Your task to perform on an android device: change the clock display to show seconds Image 0: 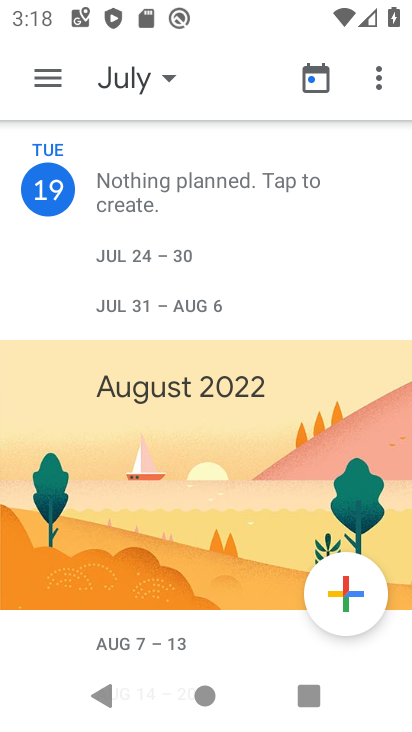
Step 0: press back button
Your task to perform on an android device: change the clock display to show seconds Image 1: 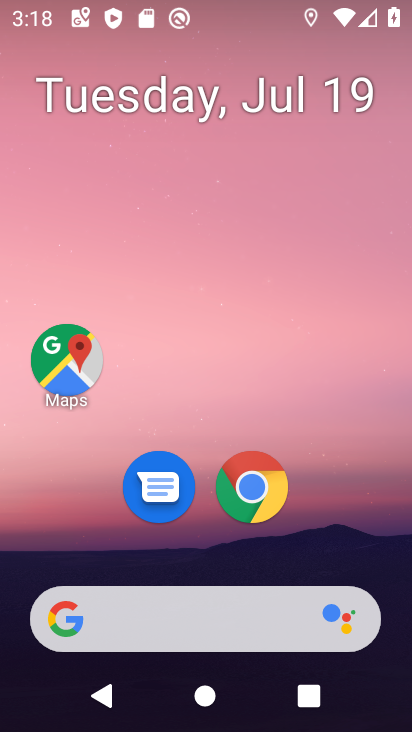
Step 1: drag from (248, 545) to (307, 1)
Your task to perform on an android device: change the clock display to show seconds Image 2: 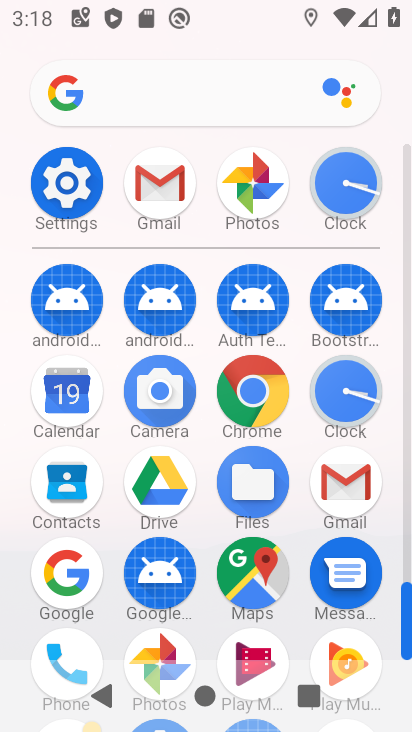
Step 2: click (335, 175)
Your task to perform on an android device: change the clock display to show seconds Image 3: 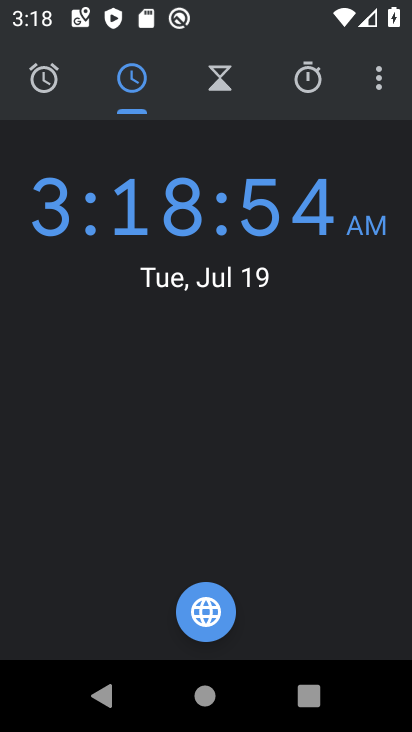
Step 3: click (366, 74)
Your task to perform on an android device: change the clock display to show seconds Image 4: 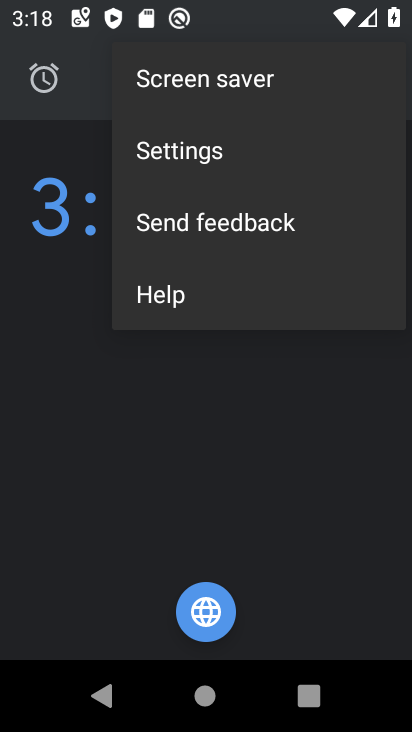
Step 4: click (251, 144)
Your task to perform on an android device: change the clock display to show seconds Image 5: 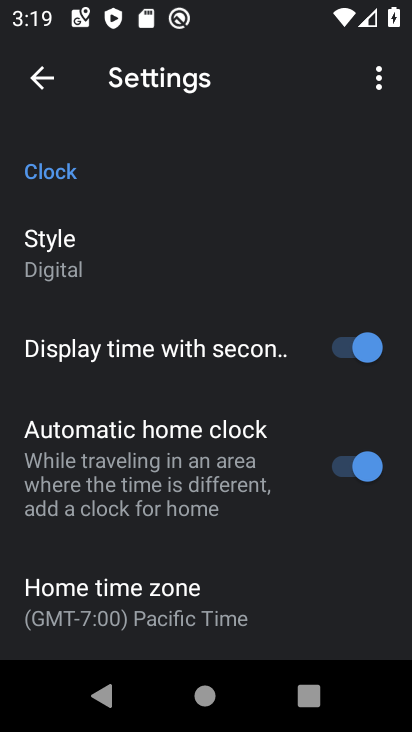
Step 5: task complete